Your task to perform on an android device: Go to CNN.com Image 0: 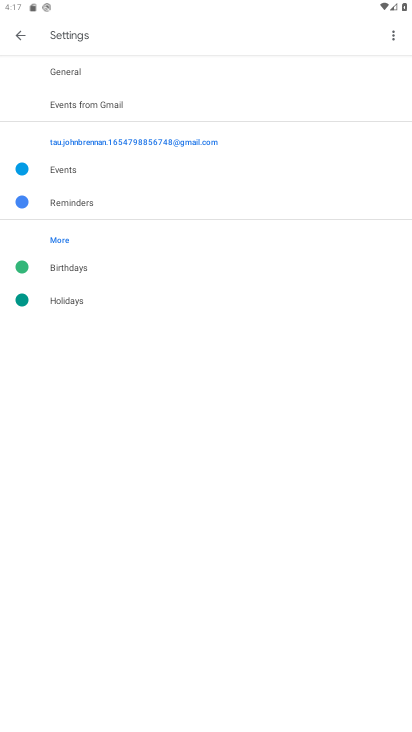
Step 0: press home button
Your task to perform on an android device: Go to CNN.com Image 1: 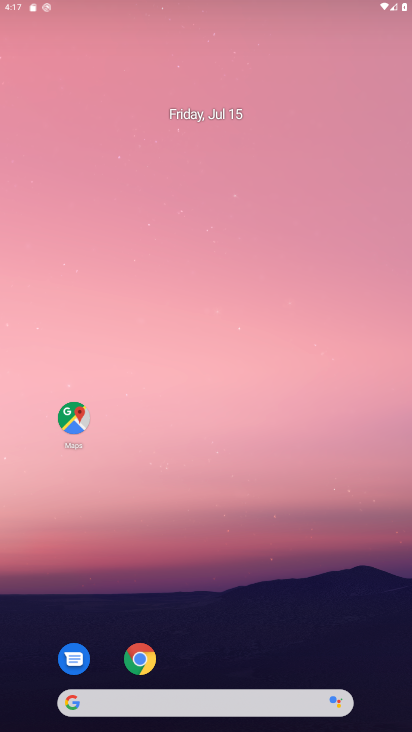
Step 1: drag from (251, 694) to (278, 10)
Your task to perform on an android device: Go to CNN.com Image 2: 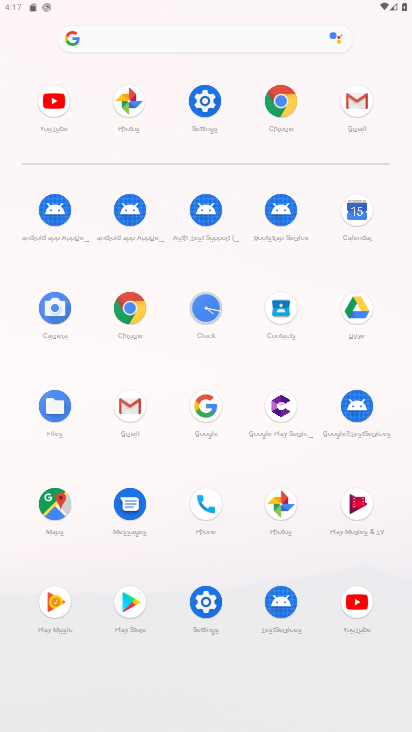
Step 2: click (130, 304)
Your task to perform on an android device: Go to CNN.com Image 3: 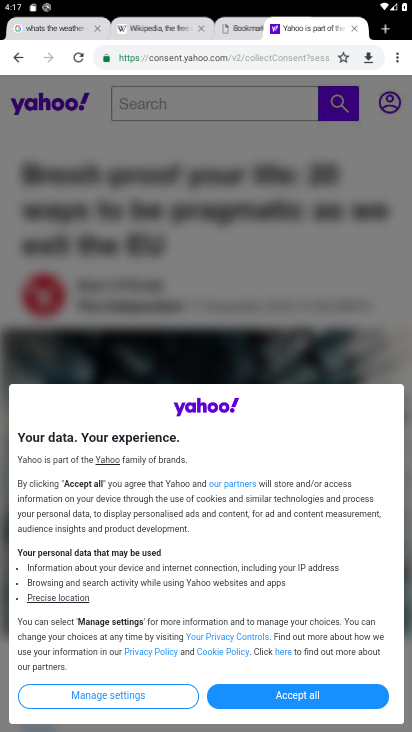
Step 3: click (252, 61)
Your task to perform on an android device: Go to CNN.com Image 4: 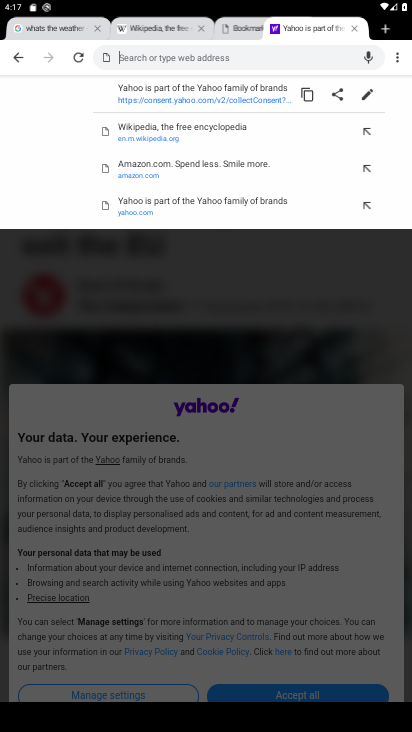
Step 4: type "cnn.com"
Your task to perform on an android device: Go to CNN.com Image 5: 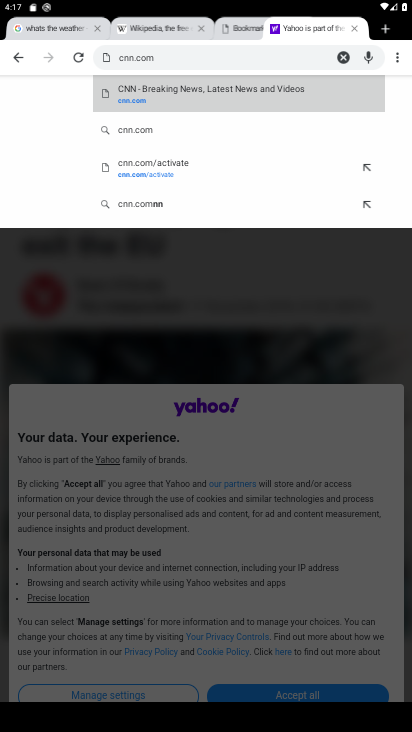
Step 5: click (173, 97)
Your task to perform on an android device: Go to CNN.com Image 6: 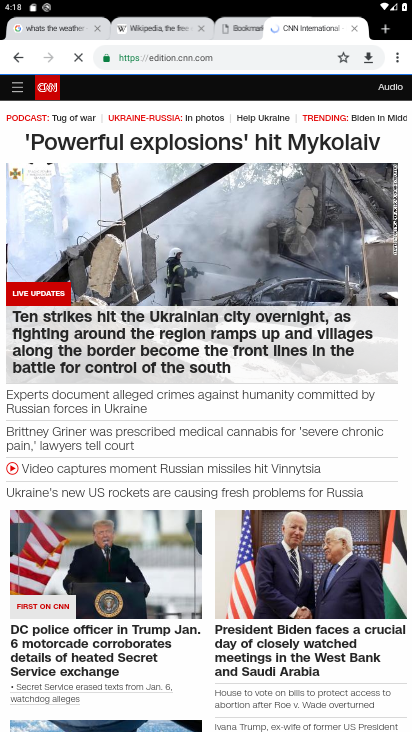
Step 6: task complete